Your task to perform on an android device: When is my next meeting? Image 0: 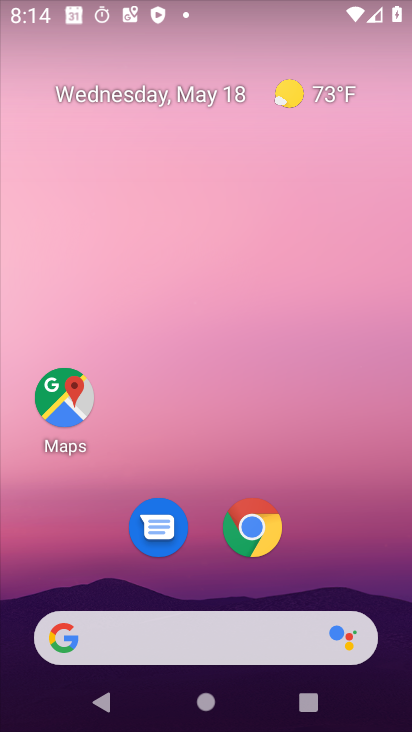
Step 0: drag from (385, 702) to (353, 173)
Your task to perform on an android device: When is my next meeting? Image 1: 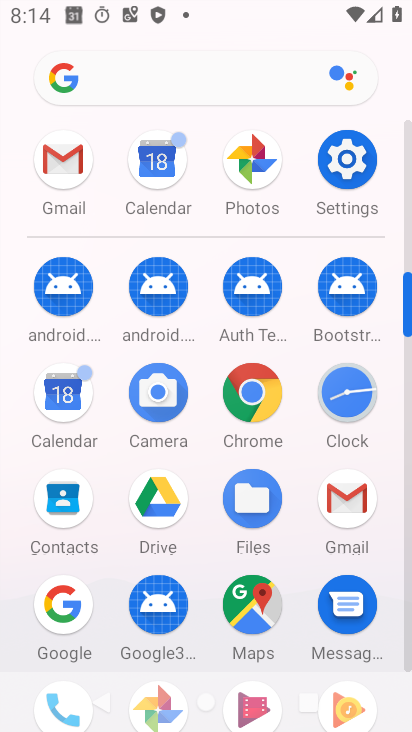
Step 1: click (70, 395)
Your task to perform on an android device: When is my next meeting? Image 2: 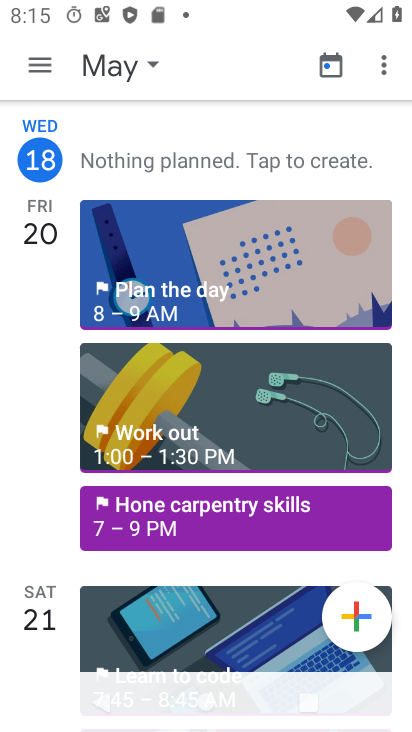
Step 2: click (42, 65)
Your task to perform on an android device: When is my next meeting? Image 3: 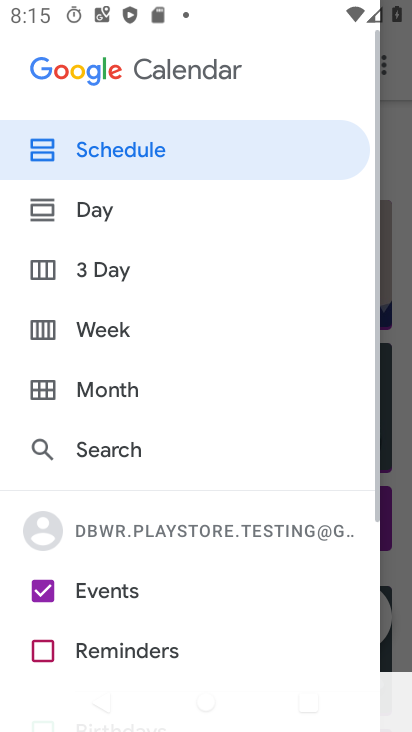
Step 3: click (78, 149)
Your task to perform on an android device: When is my next meeting? Image 4: 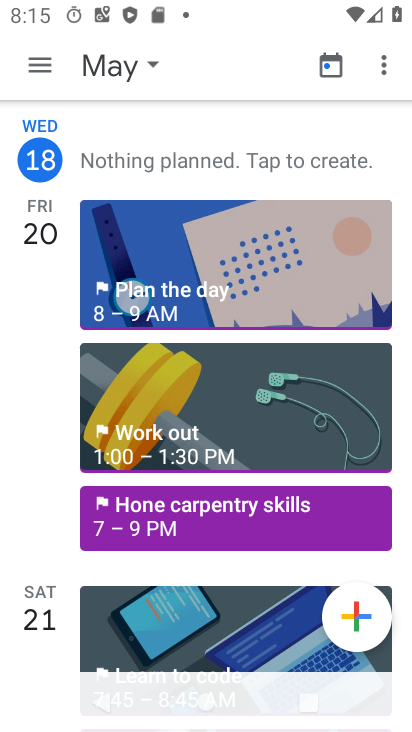
Step 4: task complete